Your task to perform on an android device: see creations saved in the google photos Image 0: 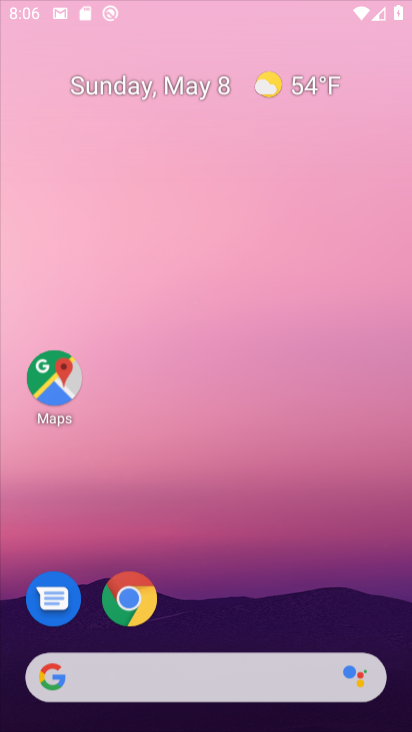
Step 0: click (227, 162)
Your task to perform on an android device: see creations saved in the google photos Image 1: 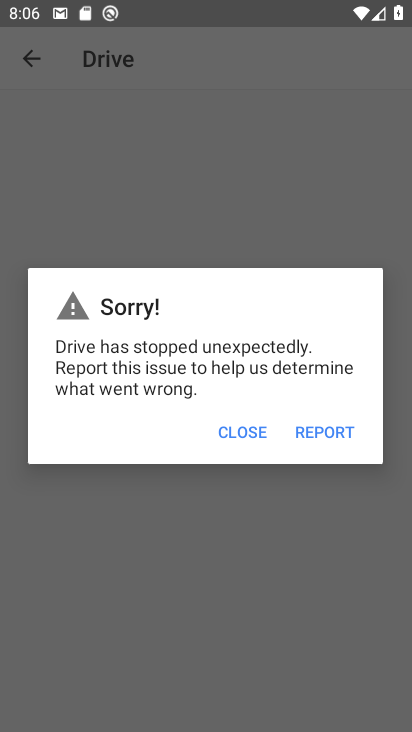
Step 1: drag from (190, 400) to (354, 403)
Your task to perform on an android device: see creations saved in the google photos Image 2: 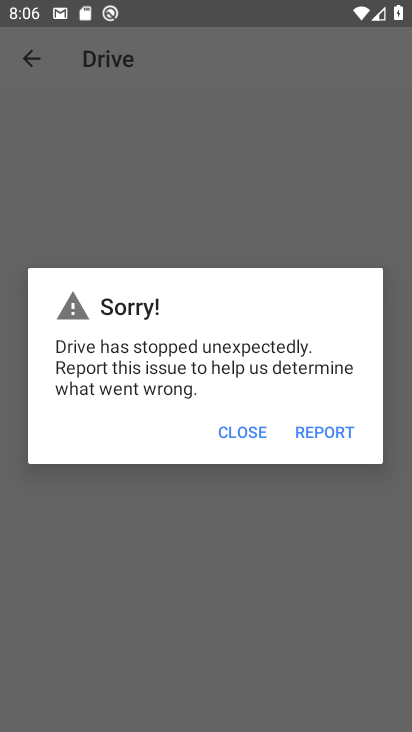
Step 2: press home button
Your task to perform on an android device: see creations saved in the google photos Image 3: 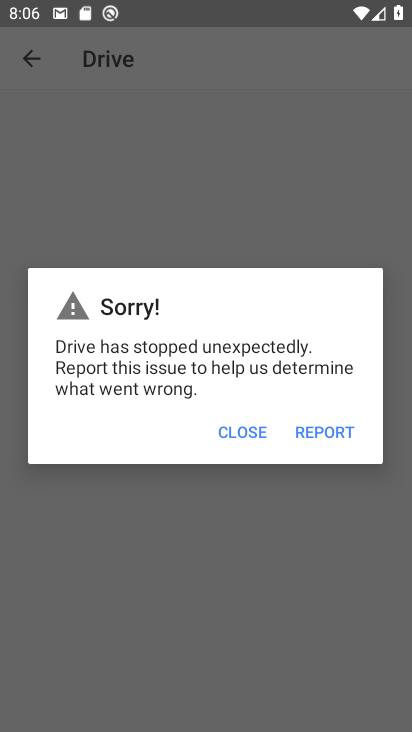
Step 3: drag from (354, 403) to (346, 640)
Your task to perform on an android device: see creations saved in the google photos Image 4: 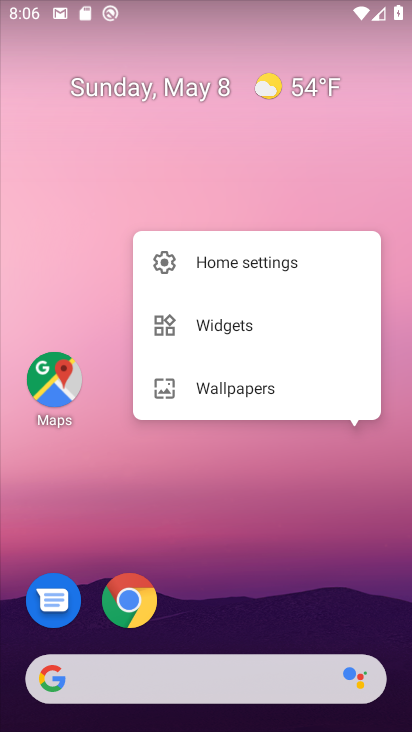
Step 4: click (272, 534)
Your task to perform on an android device: see creations saved in the google photos Image 5: 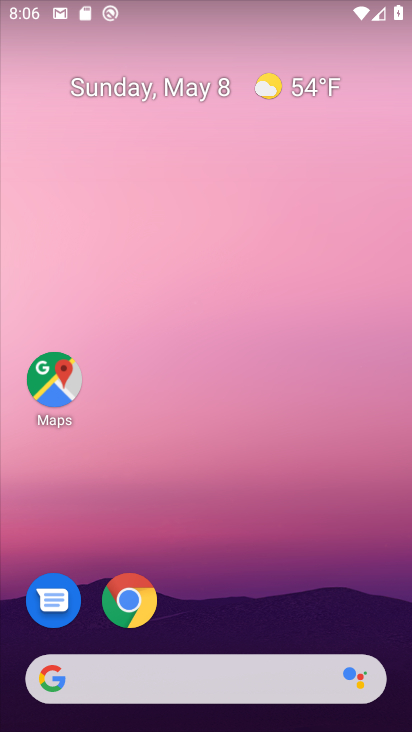
Step 5: drag from (274, 555) to (248, 240)
Your task to perform on an android device: see creations saved in the google photos Image 6: 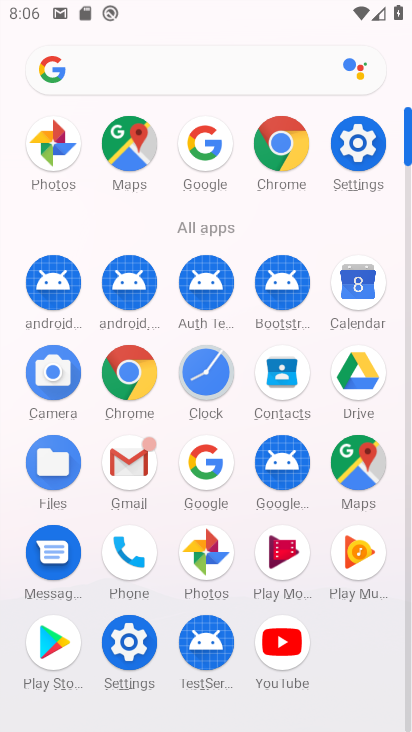
Step 6: click (209, 562)
Your task to perform on an android device: see creations saved in the google photos Image 7: 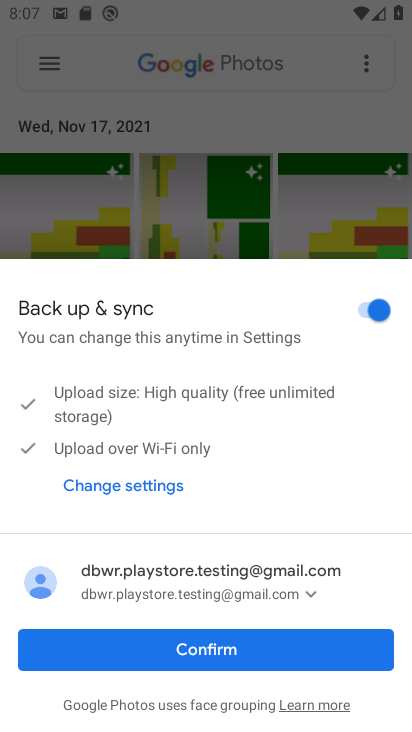
Step 7: click (227, 654)
Your task to perform on an android device: see creations saved in the google photos Image 8: 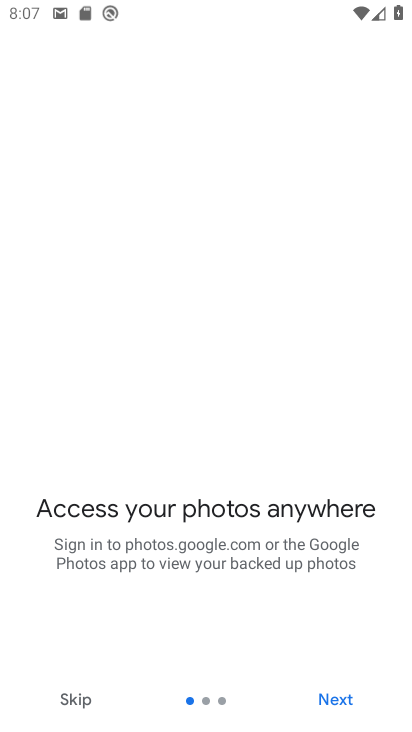
Step 8: click (328, 702)
Your task to perform on an android device: see creations saved in the google photos Image 9: 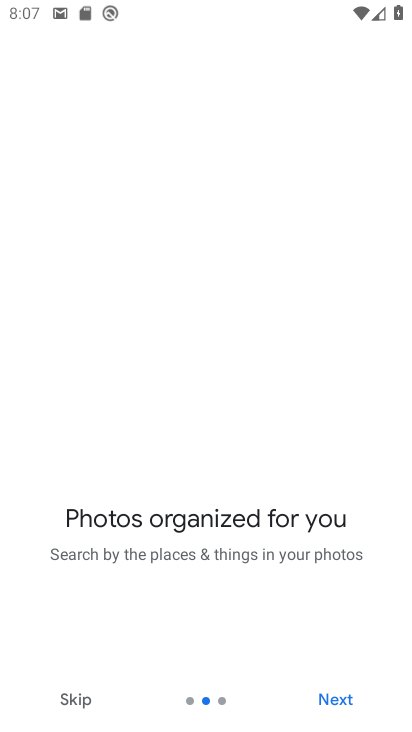
Step 9: click (328, 702)
Your task to perform on an android device: see creations saved in the google photos Image 10: 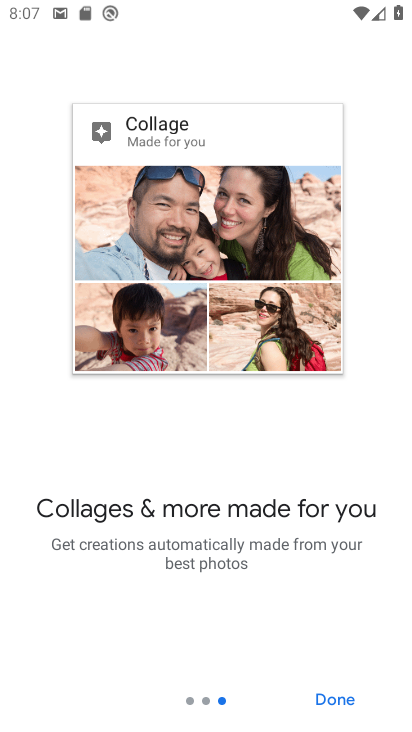
Step 10: click (328, 702)
Your task to perform on an android device: see creations saved in the google photos Image 11: 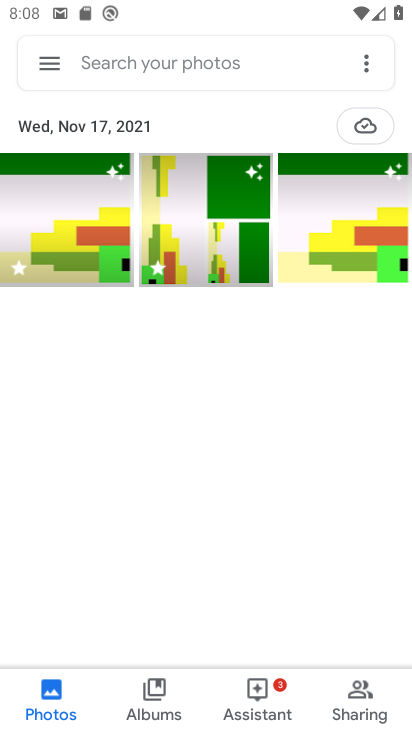
Step 11: click (274, 713)
Your task to perform on an android device: see creations saved in the google photos Image 12: 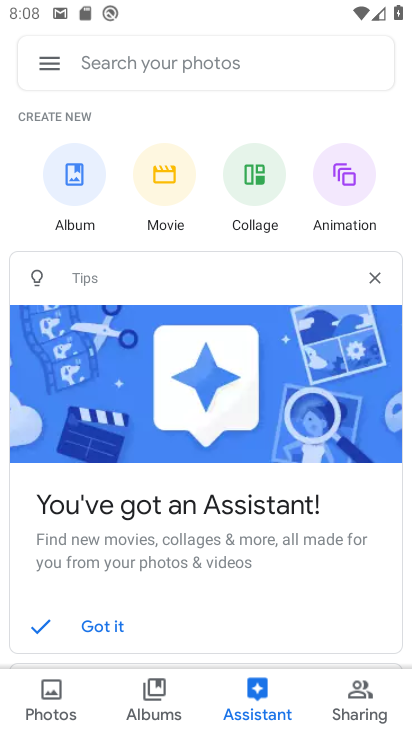
Step 12: task complete